Your task to perform on an android device: toggle location history Image 0: 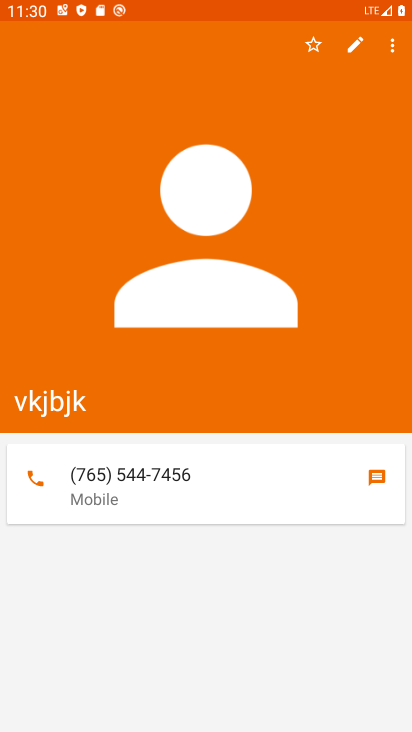
Step 0: press home button
Your task to perform on an android device: toggle location history Image 1: 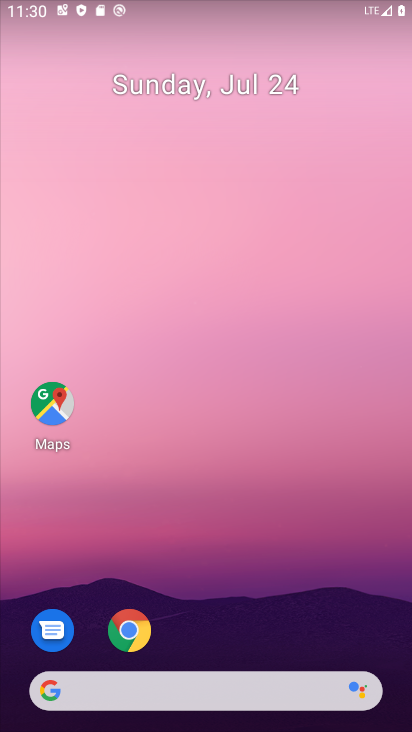
Step 1: drag from (209, 612) to (208, 304)
Your task to perform on an android device: toggle location history Image 2: 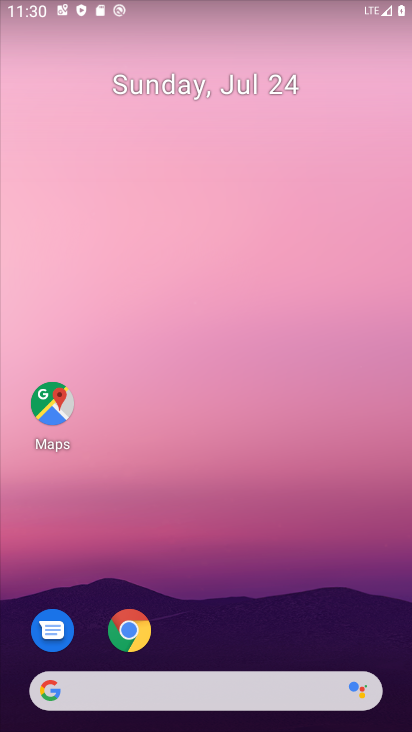
Step 2: drag from (207, 614) to (202, 68)
Your task to perform on an android device: toggle location history Image 3: 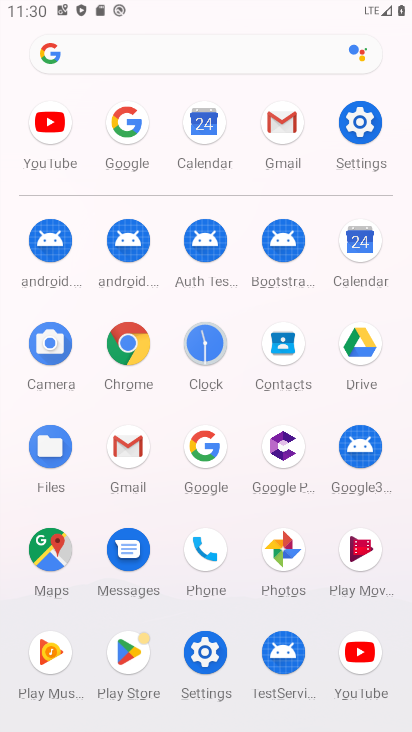
Step 3: click (374, 131)
Your task to perform on an android device: toggle location history Image 4: 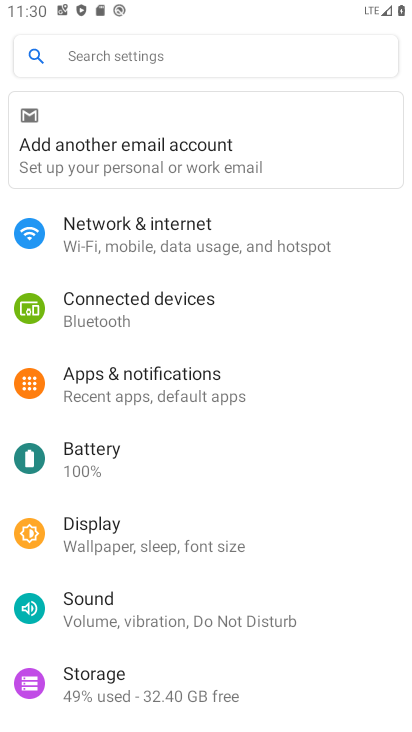
Step 4: drag from (113, 651) to (84, 345)
Your task to perform on an android device: toggle location history Image 5: 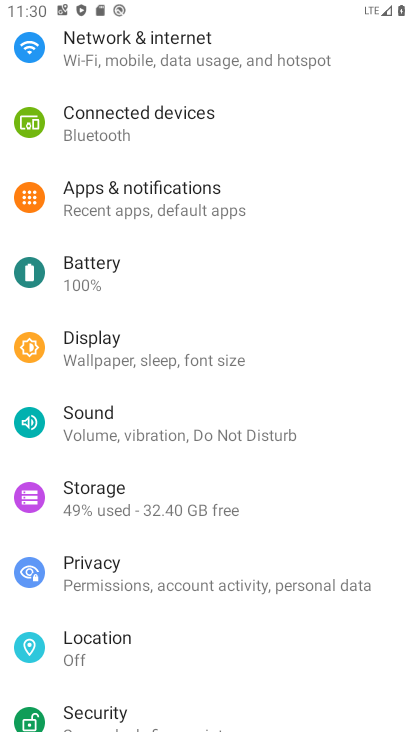
Step 5: click (128, 664)
Your task to perform on an android device: toggle location history Image 6: 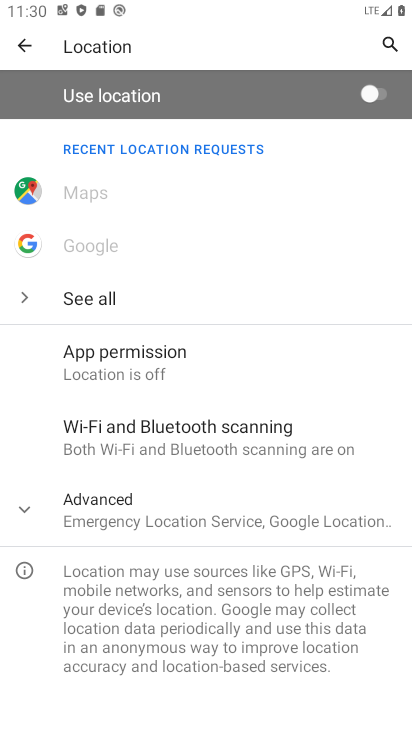
Step 6: click (165, 526)
Your task to perform on an android device: toggle location history Image 7: 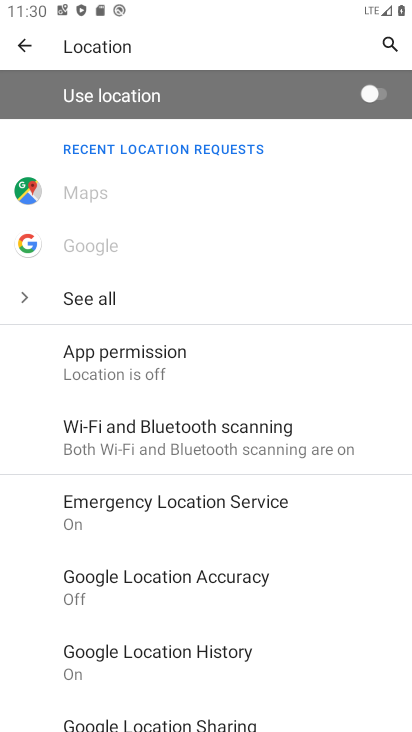
Step 7: drag from (245, 629) to (227, 397)
Your task to perform on an android device: toggle location history Image 8: 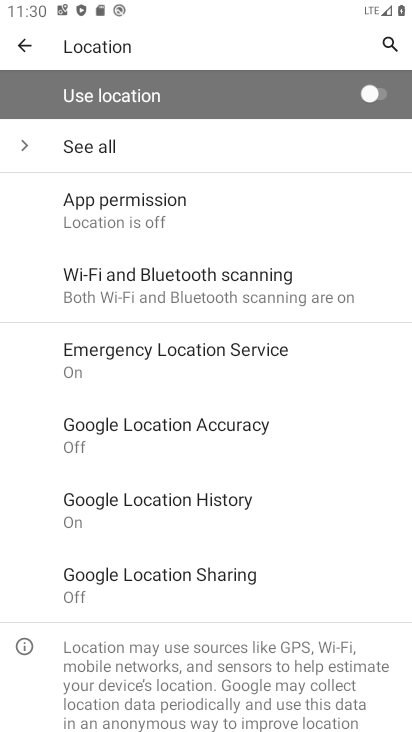
Step 8: click (230, 505)
Your task to perform on an android device: toggle location history Image 9: 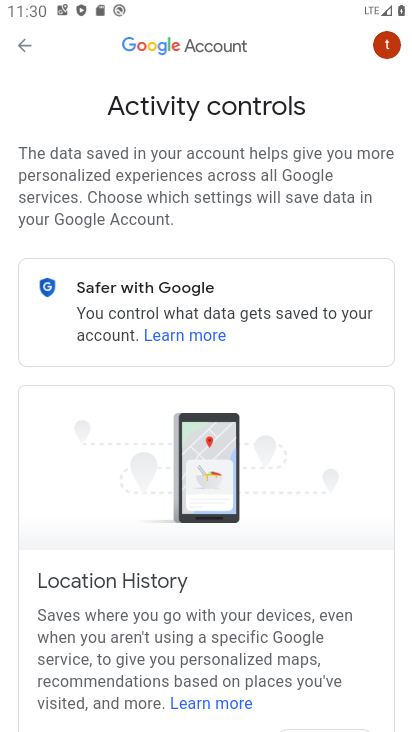
Step 9: drag from (313, 596) to (283, 149)
Your task to perform on an android device: toggle location history Image 10: 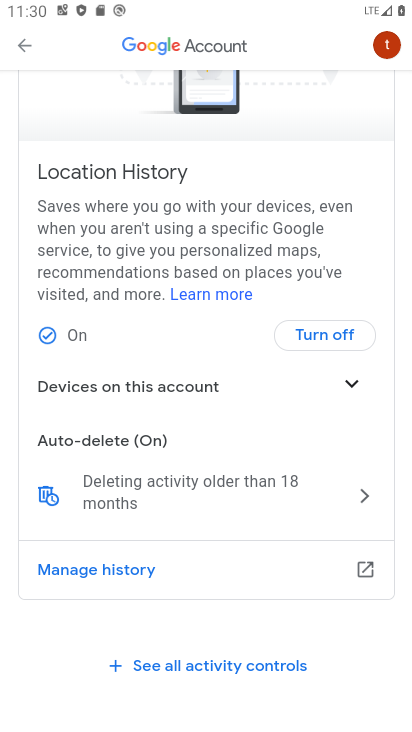
Step 10: click (350, 328)
Your task to perform on an android device: toggle location history Image 11: 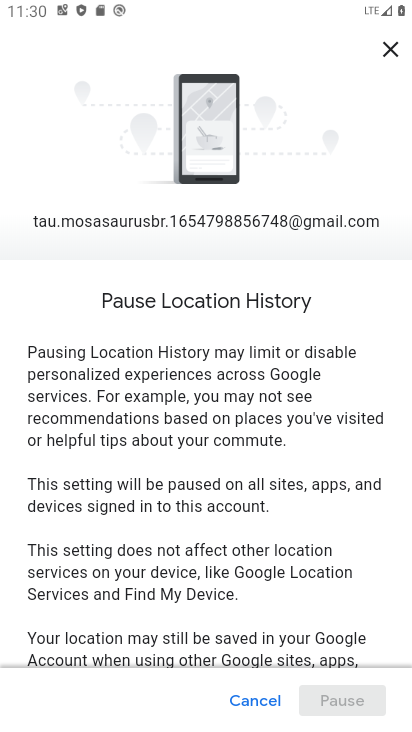
Step 11: drag from (256, 567) to (218, 13)
Your task to perform on an android device: toggle location history Image 12: 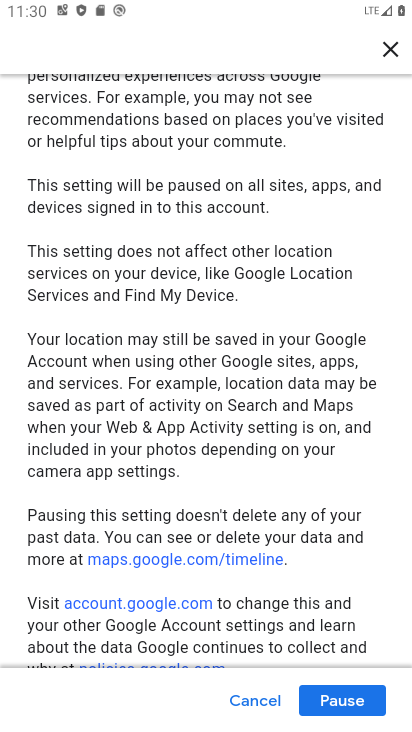
Step 12: click (319, 695)
Your task to perform on an android device: toggle location history Image 13: 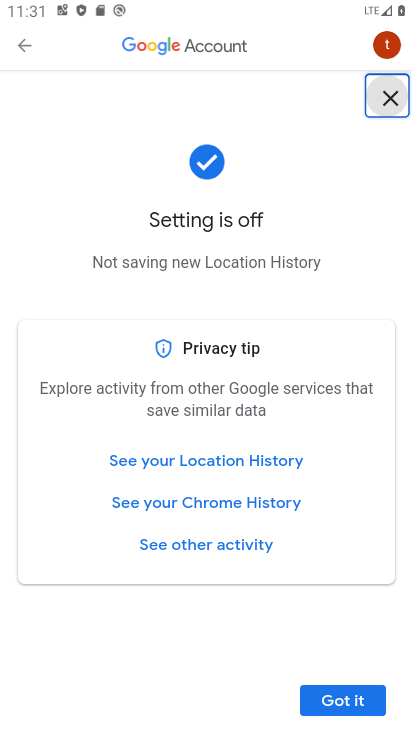
Step 13: task complete